Your task to perform on an android device: Is it going to rain today? Image 0: 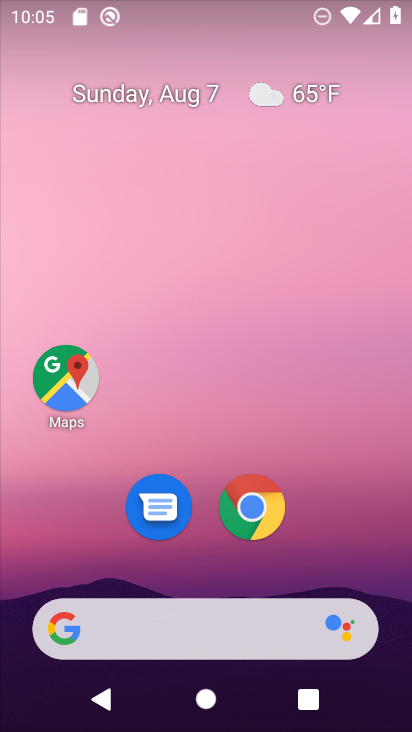
Step 0: click (308, 91)
Your task to perform on an android device: Is it going to rain today? Image 1: 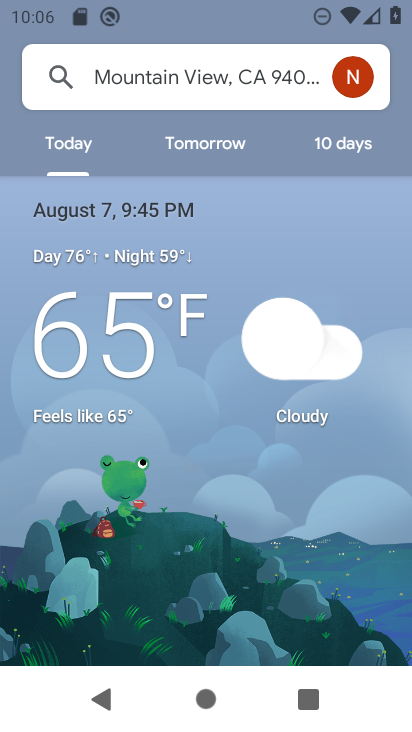
Step 1: task complete